Your task to perform on an android device: open a bookmark in the chrome app Image 0: 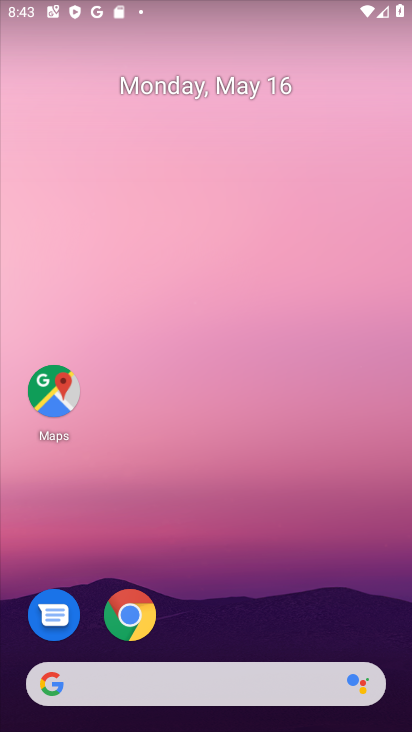
Step 0: click (154, 610)
Your task to perform on an android device: open a bookmark in the chrome app Image 1: 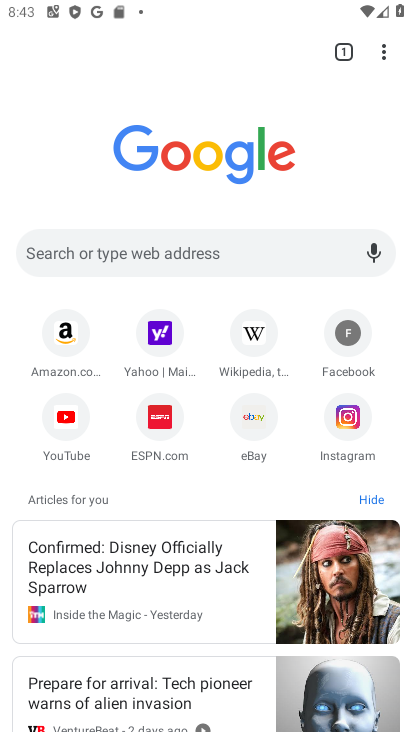
Step 1: click (380, 46)
Your task to perform on an android device: open a bookmark in the chrome app Image 2: 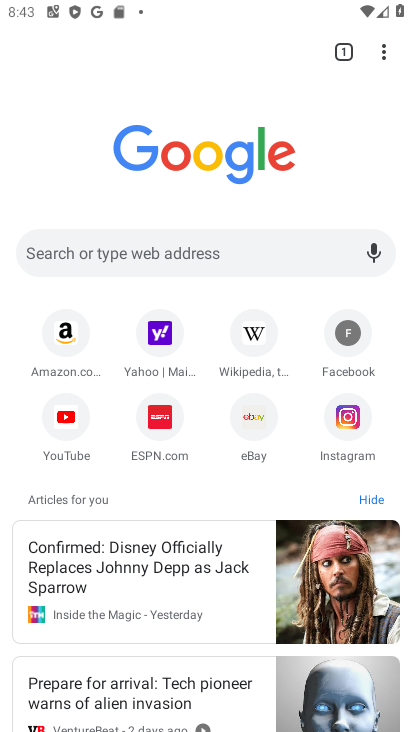
Step 2: click (375, 55)
Your task to perform on an android device: open a bookmark in the chrome app Image 3: 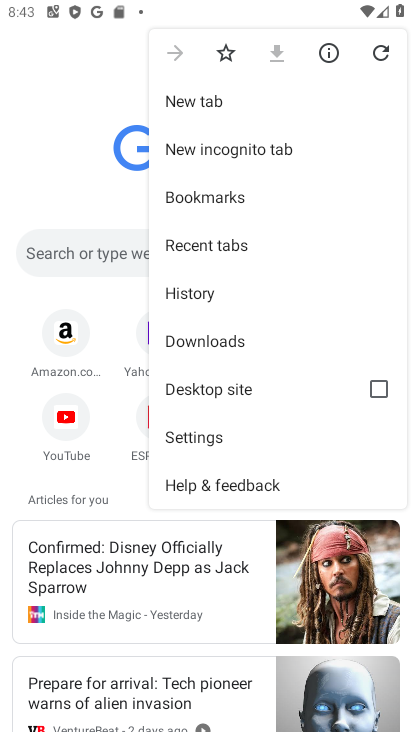
Step 3: click (254, 199)
Your task to perform on an android device: open a bookmark in the chrome app Image 4: 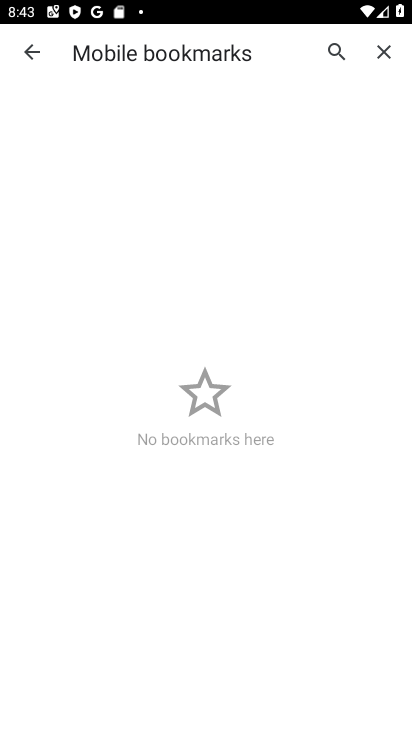
Step 4: task complete